Your task to perform on an android device: Open Google Image 0: 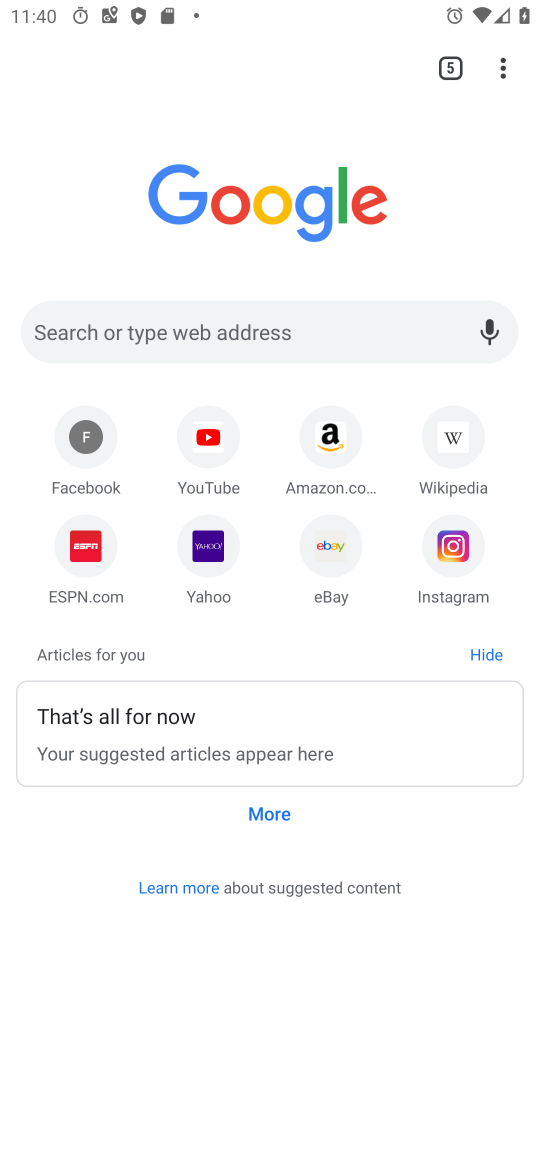
Step 0: task complete